Your task to perform on an android device: Open Reddit.com Image 0: 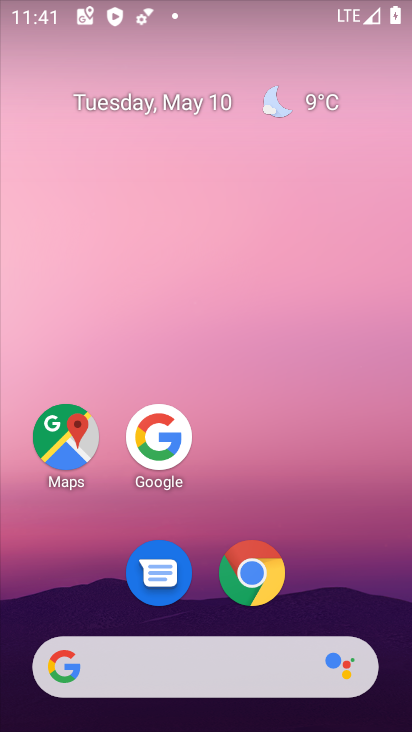
Step 0: drag from (189, 567) to (270, 177)
Your task to perform on an android device: Open Reddit.com Image 1: 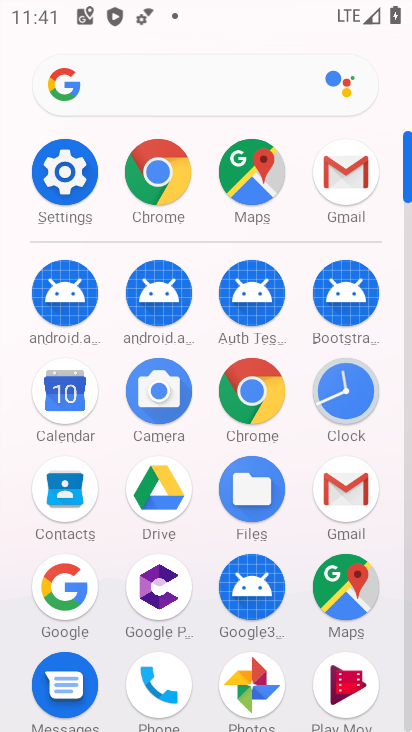
Step 1: click (155, 189)
Your task to perform on an android device: Open Reddit.com Image 2: 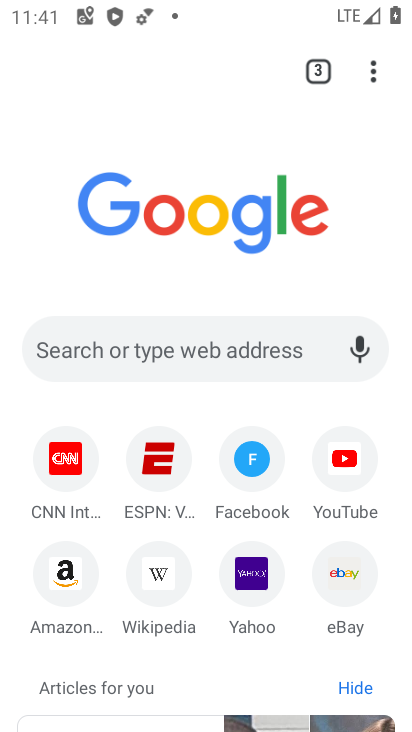
Step 2: click (114, 351)
Your task to perform on an android device: Open Reddit.com Image 3: 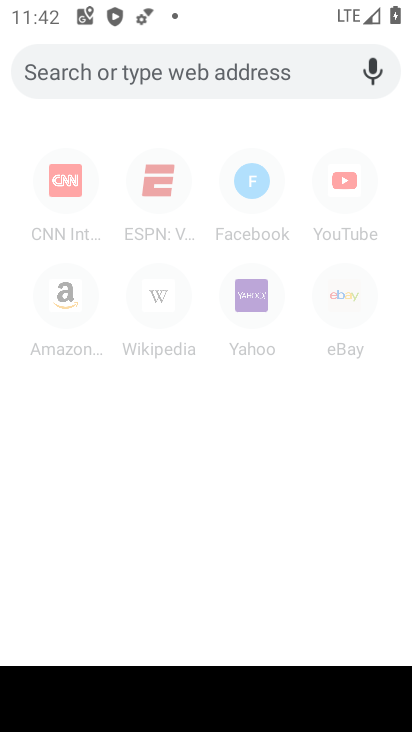
Step 3: type "reddit.com"
Your task to perform on an android device: Open Reddit.com Image 4: 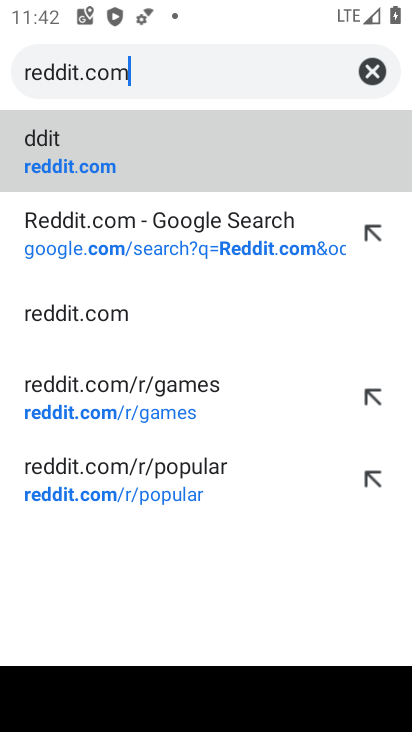
Step 4: click (126, 229)
Your task to perform on an android device: Open Reddit.com Image 5: 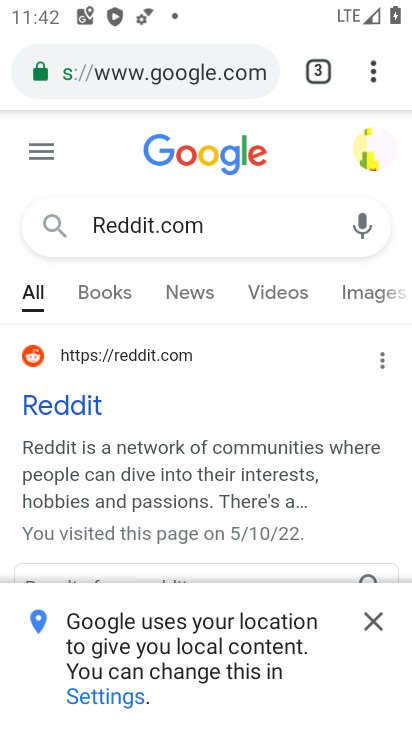
Step 5: click (70, 391)
Your task to perform on an android device: Open Reddit.com Image 6: 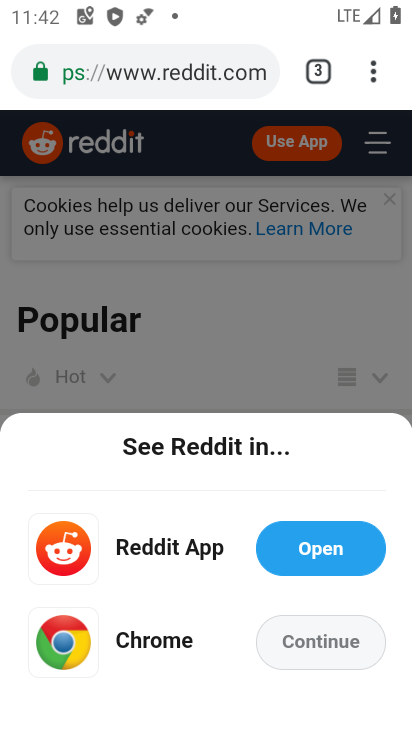
Step 6: task complete